Your task to perform on an android device: open a bookmark in the chrome app Image 0: 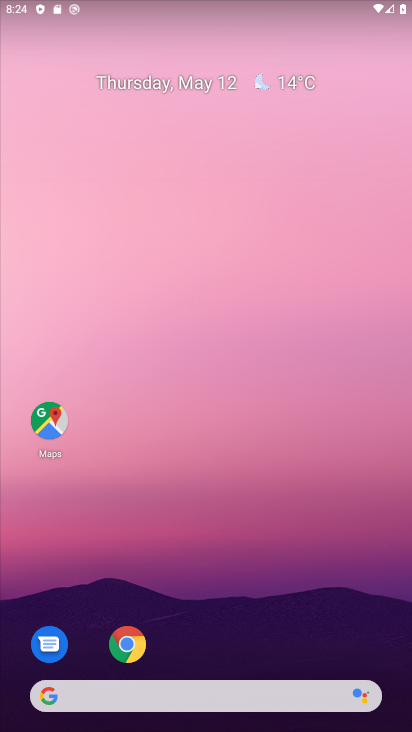
Step 0: click (135, 637)
Your task to perform on an android device: open a bookmark in the chrome app Image 1: 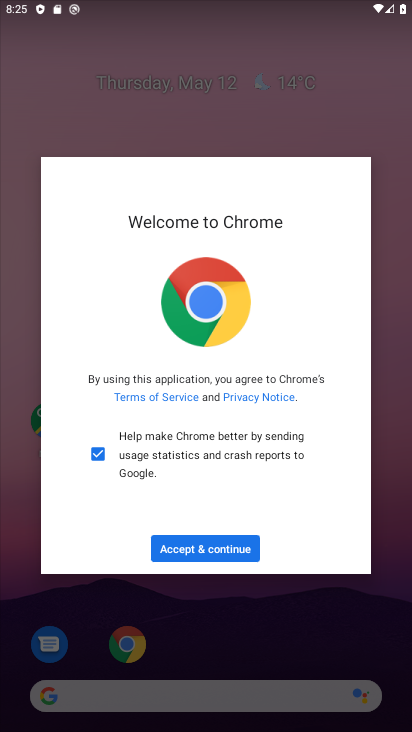
Step 1: click (173, 557)
Your task to perform on an android device: open a bookmark in the chrome app Image 2: 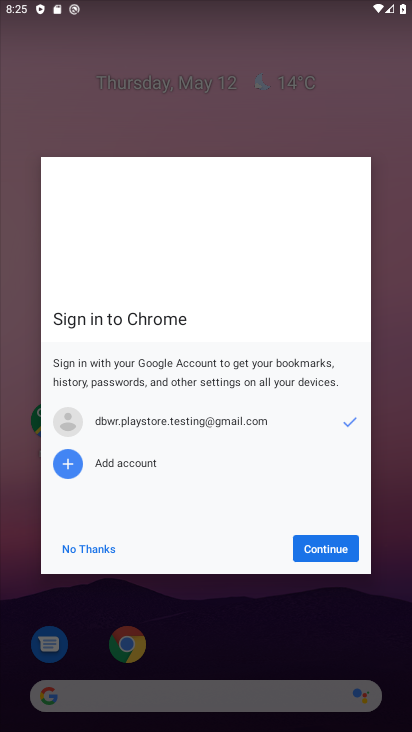
Step 2: click (351, 554)
Your task to perform on an android device: open a bookmark in the chrome app Image 3: 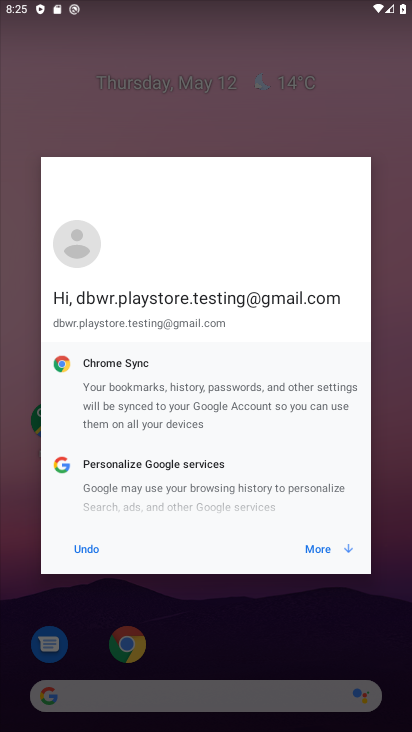
Step 3: click (324, 557)
Your task to perform on an android device: open a bookmark in the chrome app Image 4: 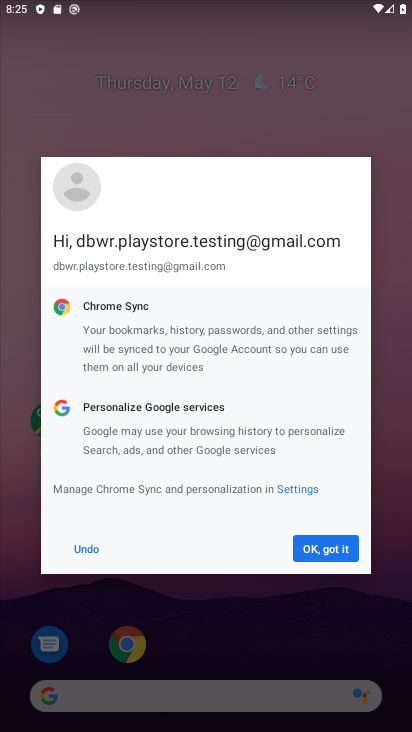
Step 4: click (324, 556)
Your task to perform on an android device: open a bookmark in the chrome app Image 5: 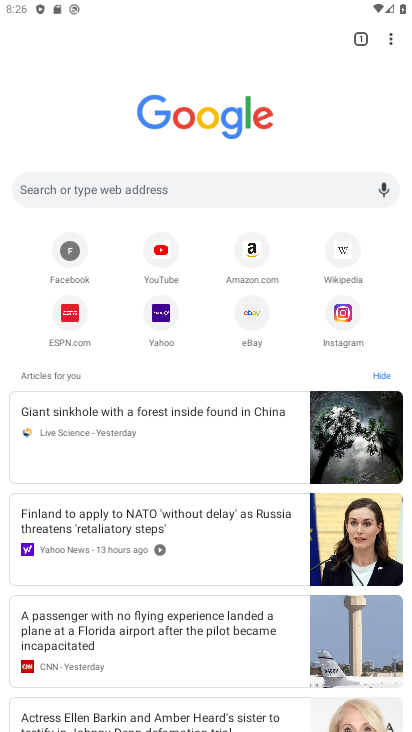
Step 5: drag from (391, 39) to (274, 153)
Your task to perform on an android device: open a bookmark in the chrome app Image 6: 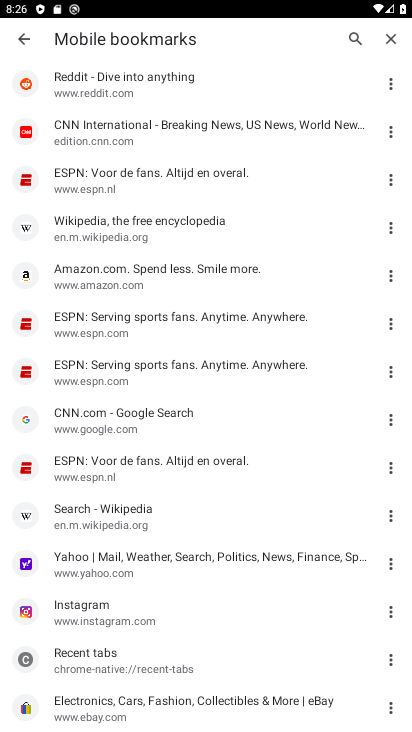
Step 6: click (174, 98)
Your task to perform on an android device: open a bookmark in the chrome app Image 7: 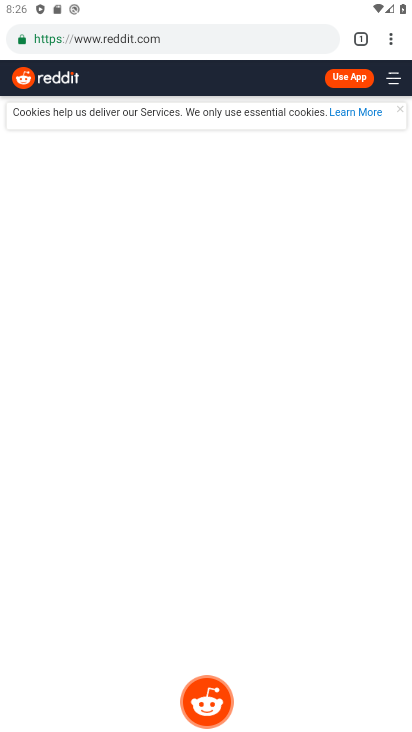
Step 7: task complete